Your task to perform on an android device: Open the calendar app, open the side menu, and click the "Day" option Image 0: 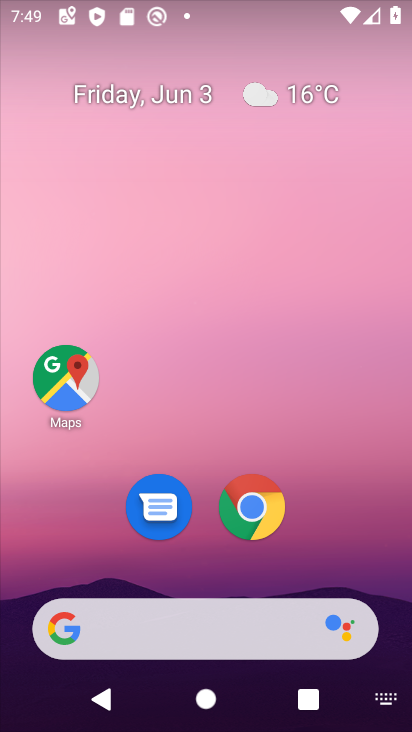
Step 0: drag from (302, 477) to (196, 0)
Your task to perform on an android device: Open the calendar app, open the side menu, and click the "Day" option Image 1: 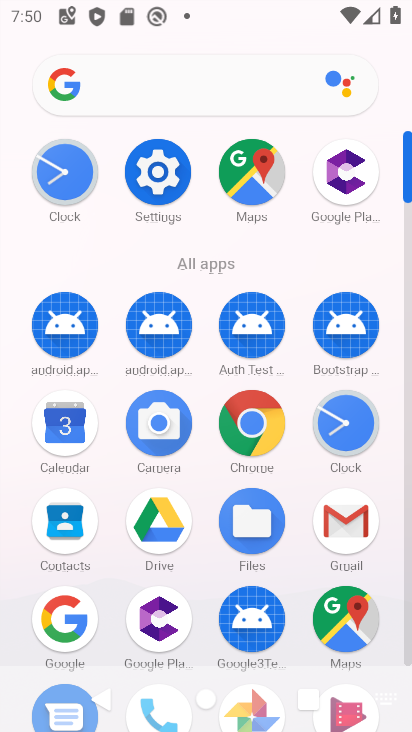
Step 1: click (72, 411)
Your task to perform on an android device: Open the calendar app, open the side menu, and click the "Day" option Image 2: 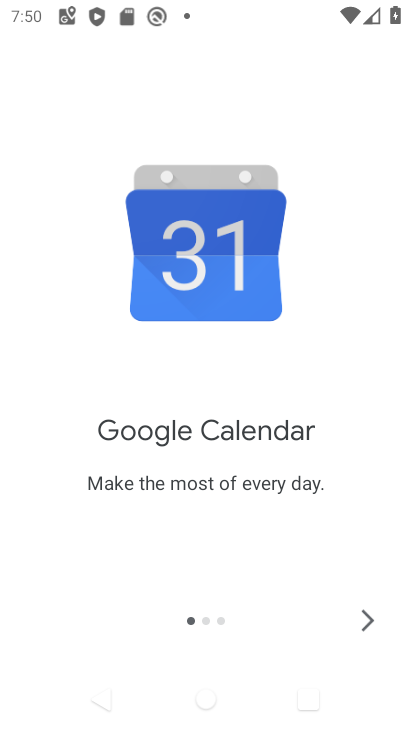
Step 2: click (366, 625)
Your task to perform on an android device: Open the calendar app, open the side menu, and click the "Day" option Image 3: 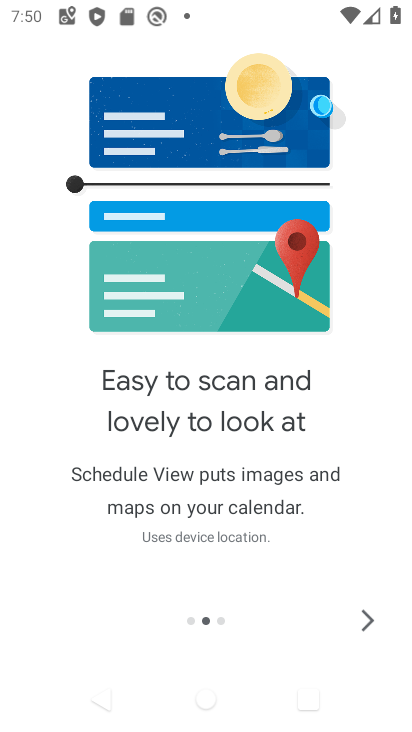
Step 3: click (370, 634)
Your task to perform on an android device: Open the calendar app, open the side menu, and click the "Day" option Image 4: 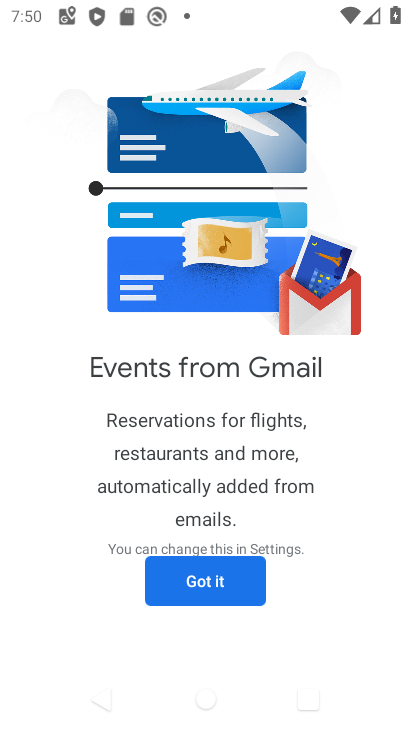
Step 4: click (245, 602)
Your task to perform on an android device: Open the calendar app, open the side menu, and click the "Day" option Image 5: 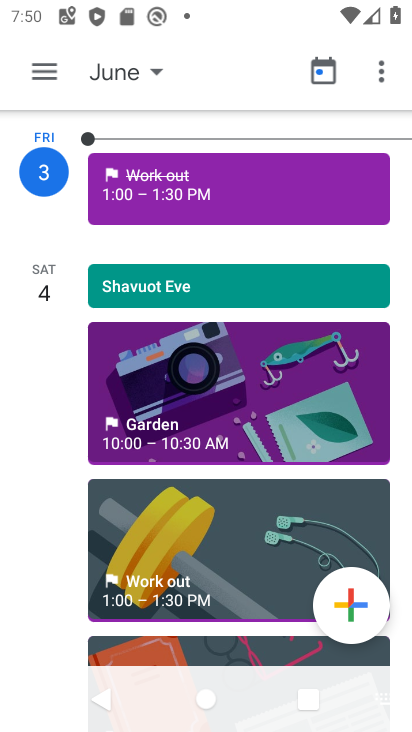
Step 5: click (49, 74)
Your task to perform on an android device: Open the calendar app, open the side menu, and click the "Day" option Image 6: 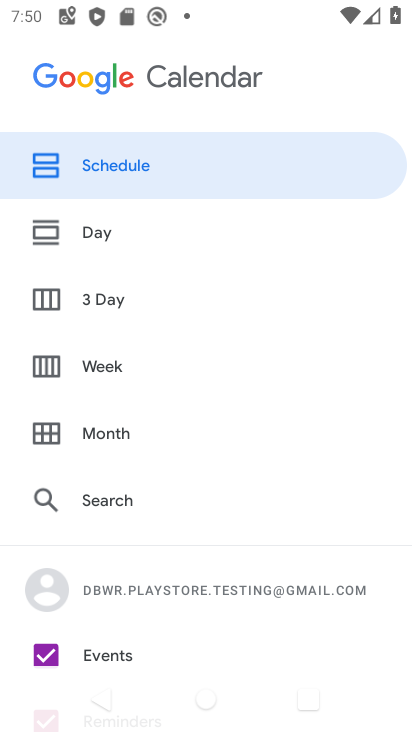
Step 6: click (123, 238)
Your task to perform on an android device: Open the calendar app, open the side menu, and click the "Day" option Image 7: 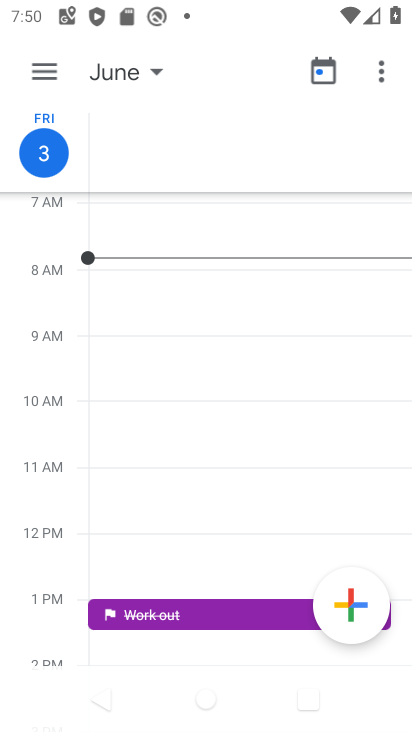
Step 7: task complete